Your task to perform on an android device: set an alarm Image 0: 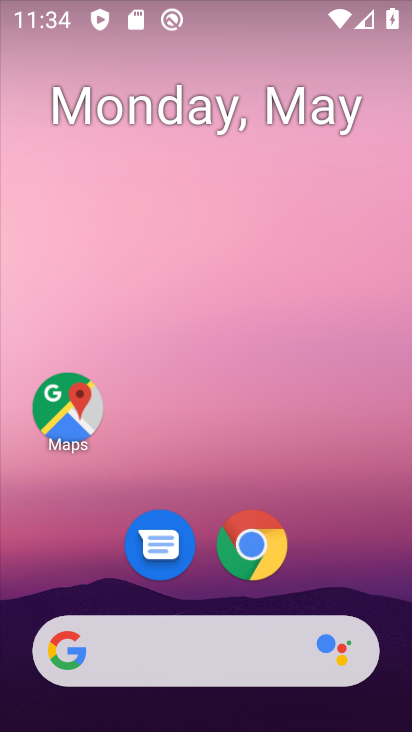
Step 0: drag from (233, 607) to (322, 118)
Your task to perform on an android device: set an alarm Image 1: 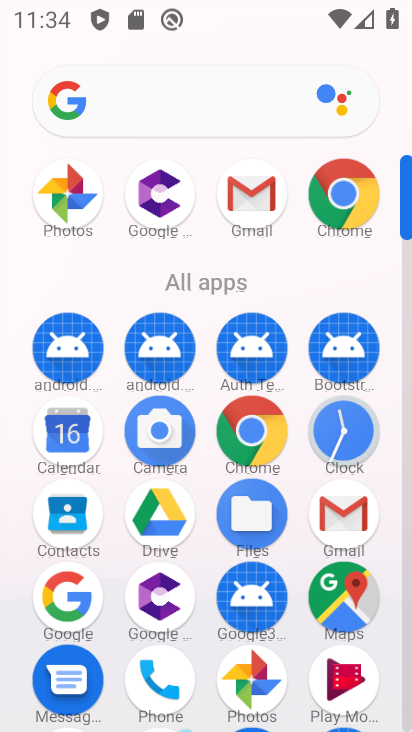
Step 1: click (328, 442)
Your task to perform on an android device: set an alarm Image 2: 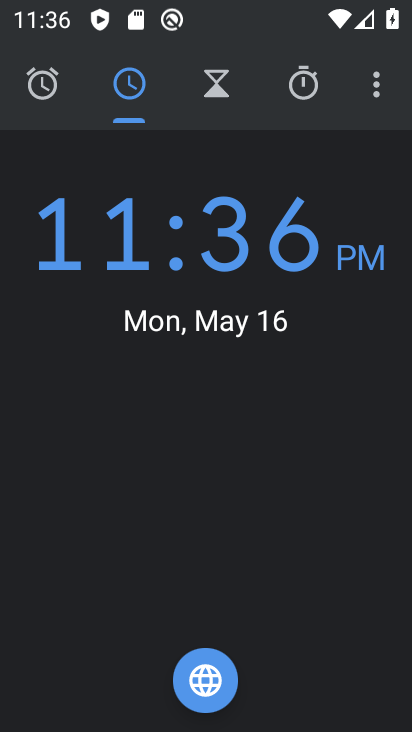
Step 2: click (39, 91)
Your task to perform on an android device: set an alarm Image 3: 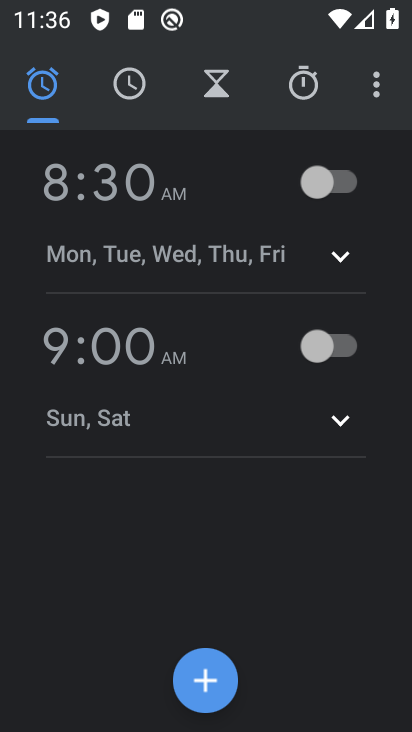
Step 3: click (333, 176)
Your task to perform on an android device: set an alarm Image 4: 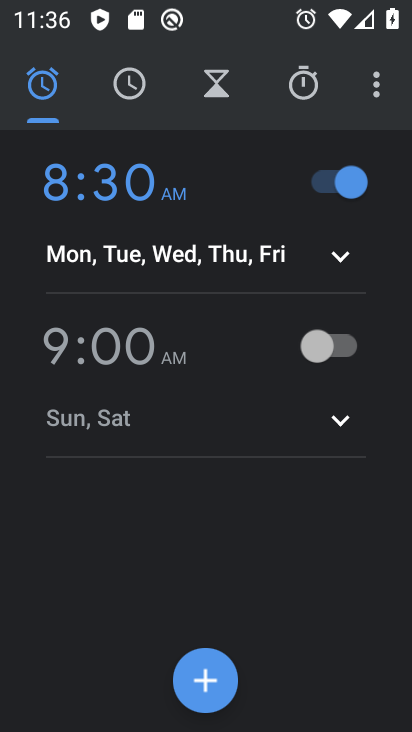
Step 4: task complete